Your task to perform on an android device: Open sound settings Image 0: 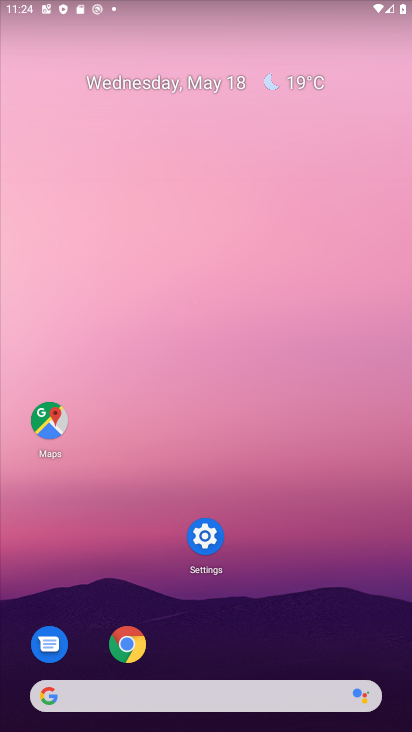
Step 0: drag from (292, 642) to (272, 193)
Your task to perform on an android device: Open sound settings Image 1: 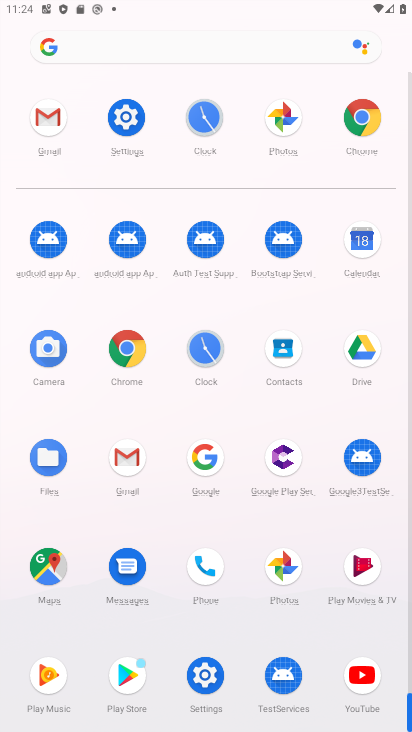
Step 1: click (118, 113)
Your task to perform on an android device: Open sound settings Image 2: 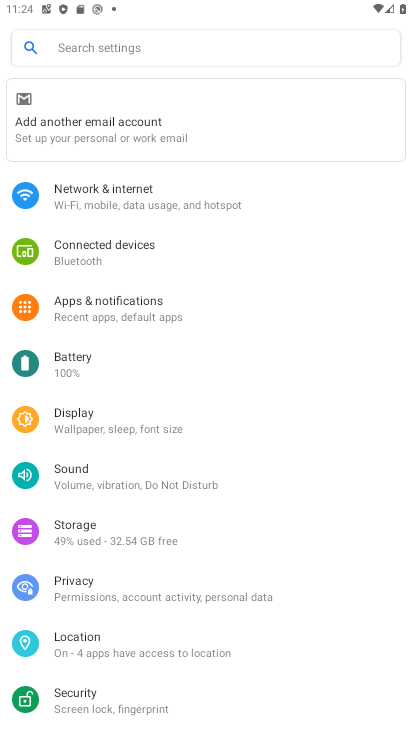
Step 2: click (122, 465)
Your task to perform on an android device: Open sound settings Image 3: 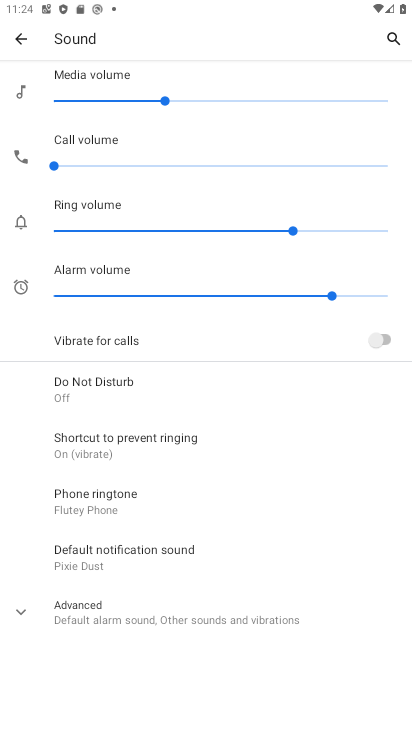
Step 3: task complete